Your task to perform on an android device: turn off airplane mode Image 0: 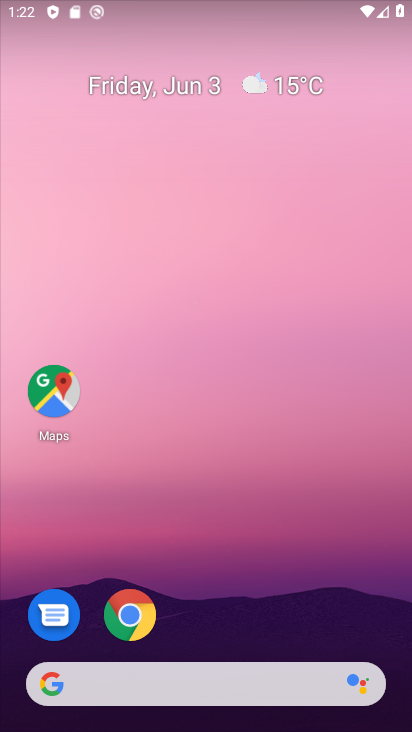
Step 0: drag from (195, 641) to (214, 218)
Your task to perform on an android device: turn off airplane mode Image 1: 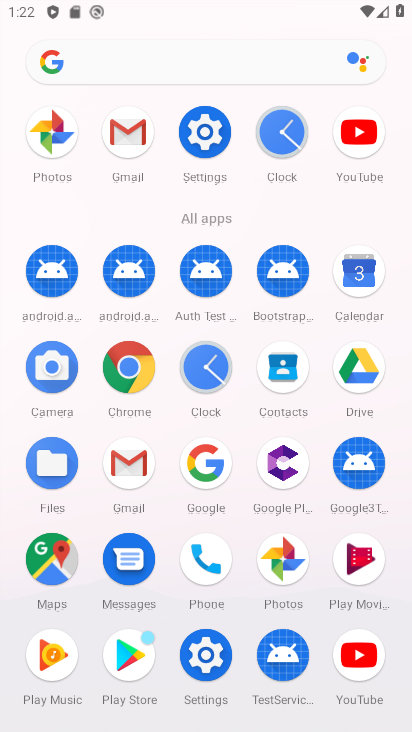
Step 1: click (188, 132)
Your task to perform on an android device: turn off airplane mode Image 2: 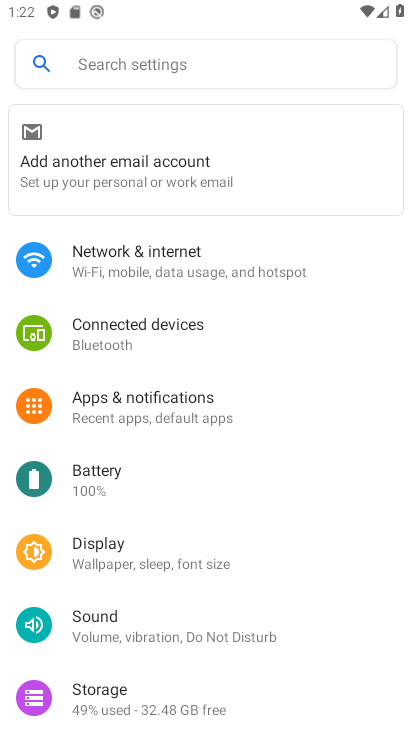
Step 2: click (158, 268)
Your task to perform on an android device: turn off airplane mode Image 3: 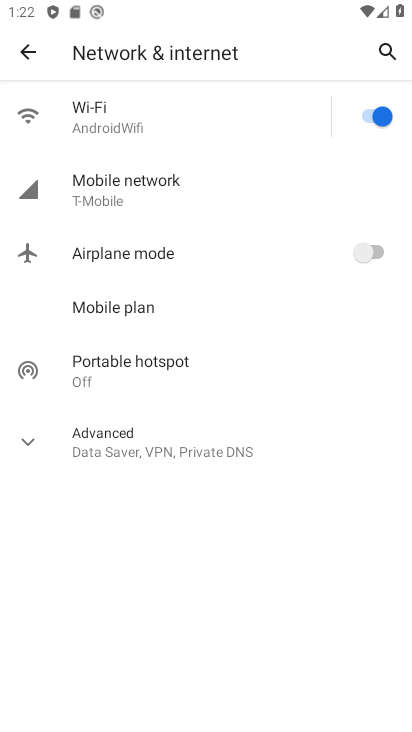
Step 3: task complete